Your task to perform on an android device: Open notification settings Image 0: 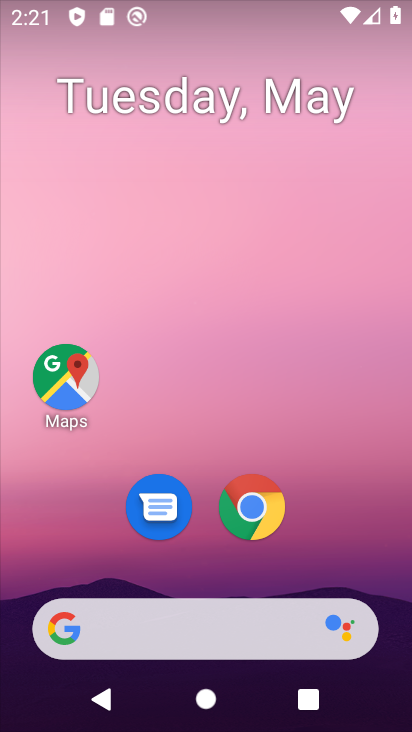
Step 0: drag from (69, 598) to (176, 99)
Your task to perform on an android device: Open notification settings Image 1: 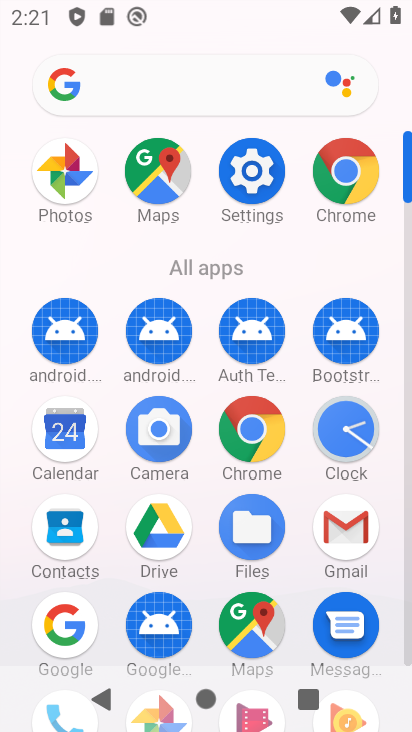
Step 1: drag from (153, 679) to (227, 415)
Your task to perform on an android device: Open notification settings Image 2: 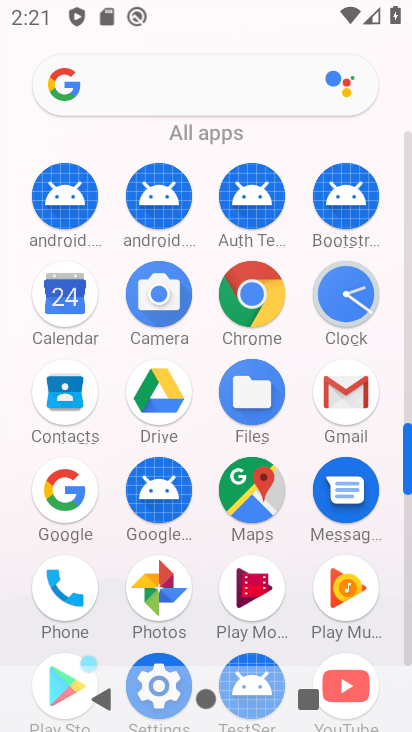
Step 2: click (159, 659)
Your task to perform on an android device: Open notification settings Image 3: 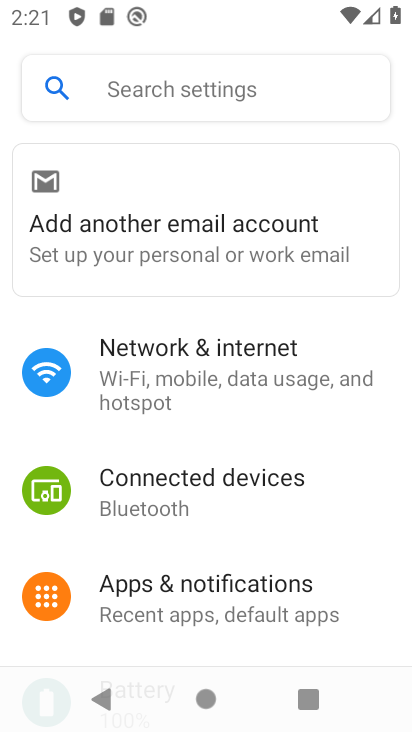
Step 3: click (230, 602)
Your task to perform on an android device: Open notification settings Image 4: 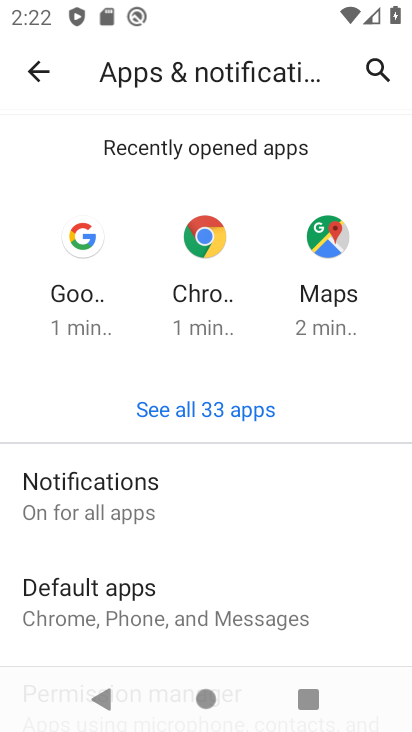
Step 4: click (193, 491)
Your task to perform on an android device: Open notification settings Image 5: 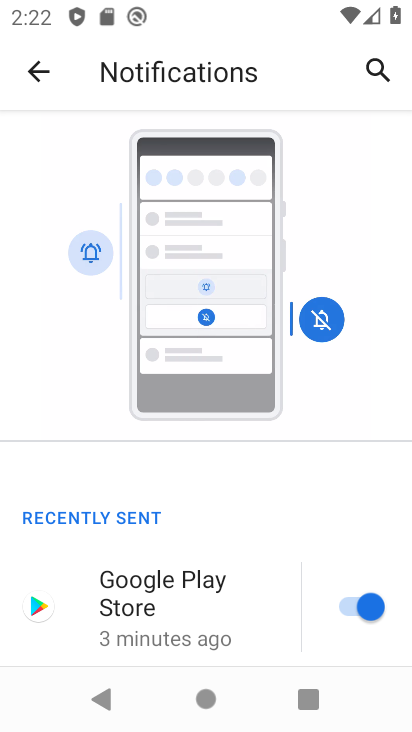
Step 5: task complete